Your task to perform on an android device: turn on bluetooth scan Image 0: 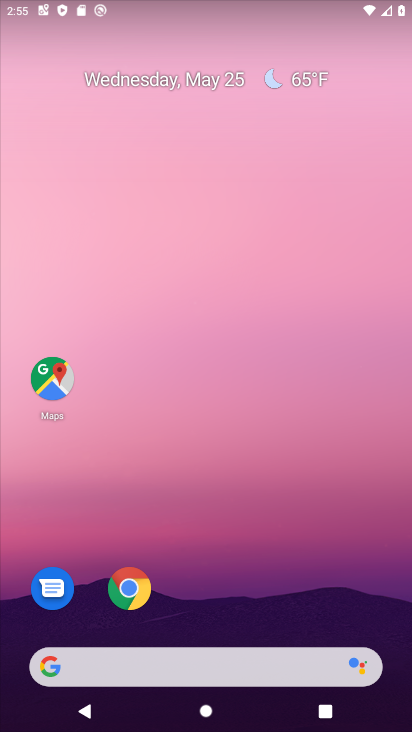
Step 0: drag from (262, 540) to (271, 183)
Your task to perform on an android device: turn on bluetooth scan Image 1: 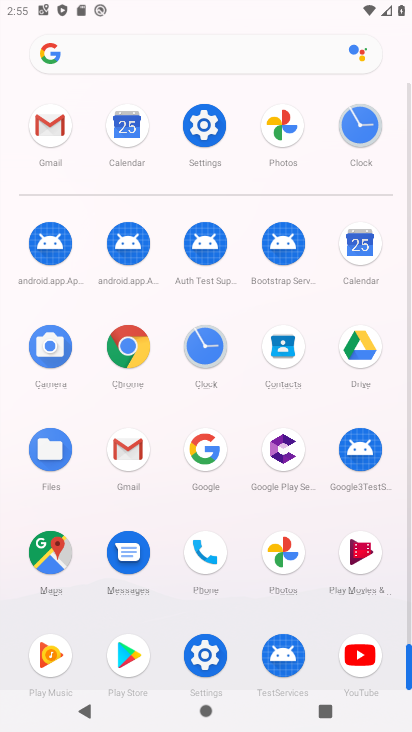
Step 1: click (207, 121)
Your task to perform on an android device: turn on bluetooth scan Image 2: 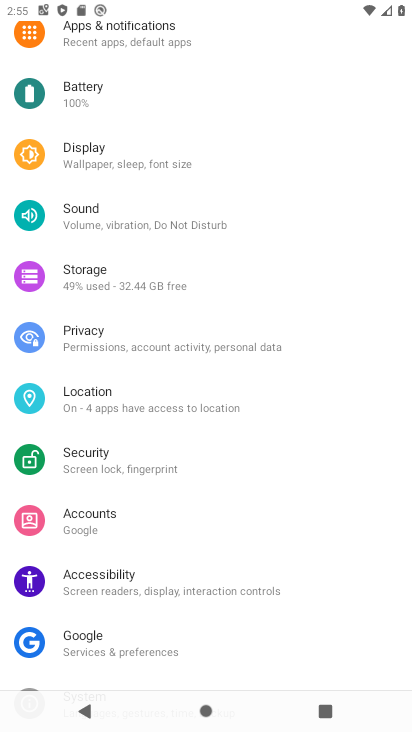
Step 2: click (130, 409)
Your task to perform on an android device: turn on bluetooth scan Image 3: 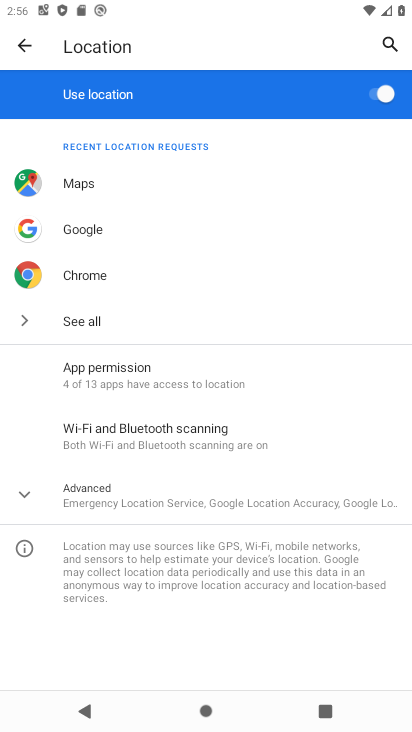
Step 3: click (124, 437)
Your task to perform on an android device: turn on bluetooth scan Image 4: 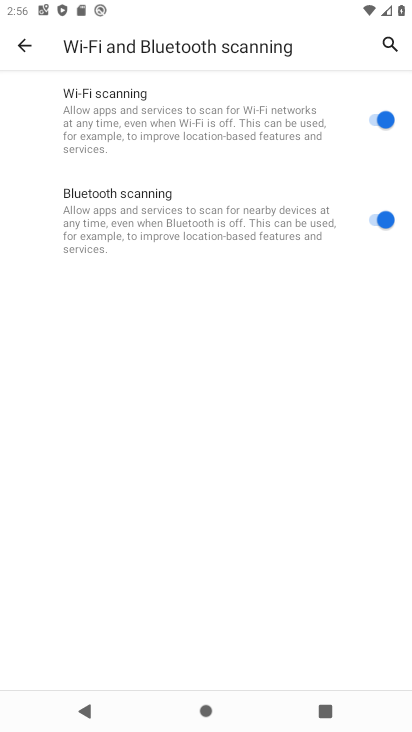
Step 4: task complete